Your task to perform on an android device: change the clock display to analog Image 0: 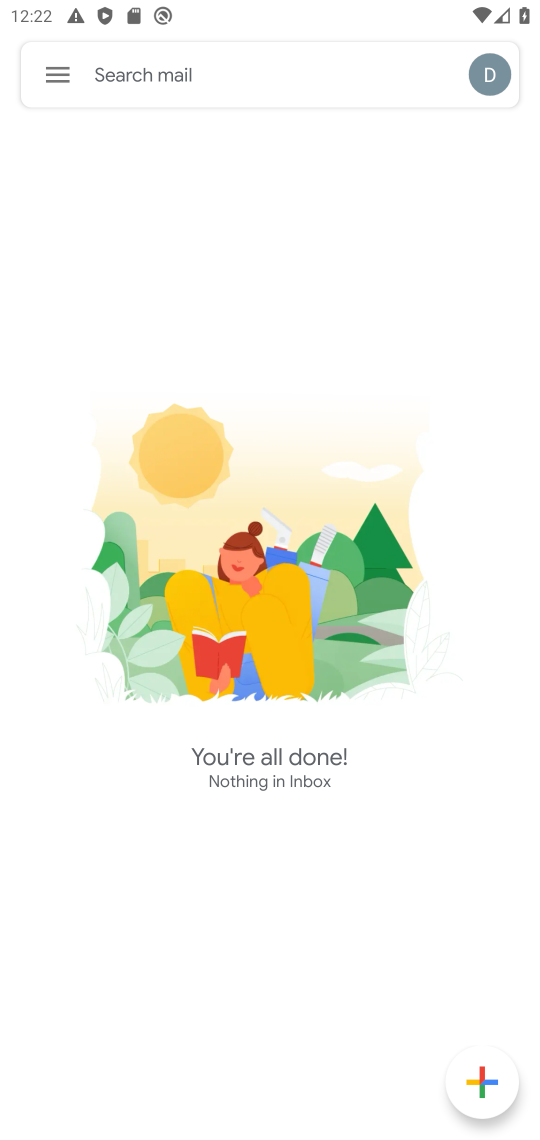
Step 0: press home button
Your task to perform on an android device: change the clock display to analog Image 1: 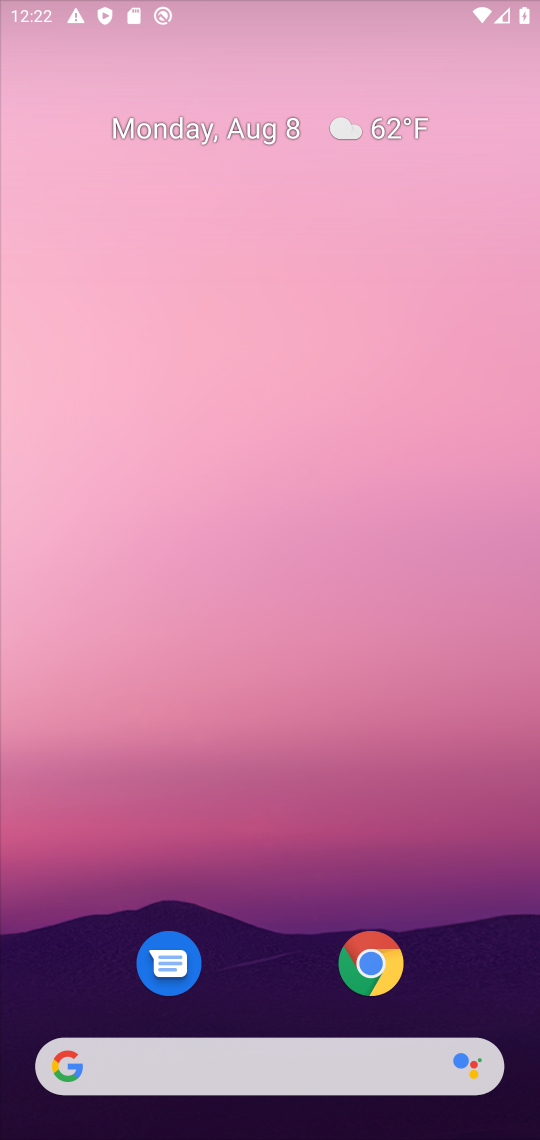
Step 1: drag from (458, 756) to (285, 19)
Your task to perform on an android device: change the clock display to analog Image 2: 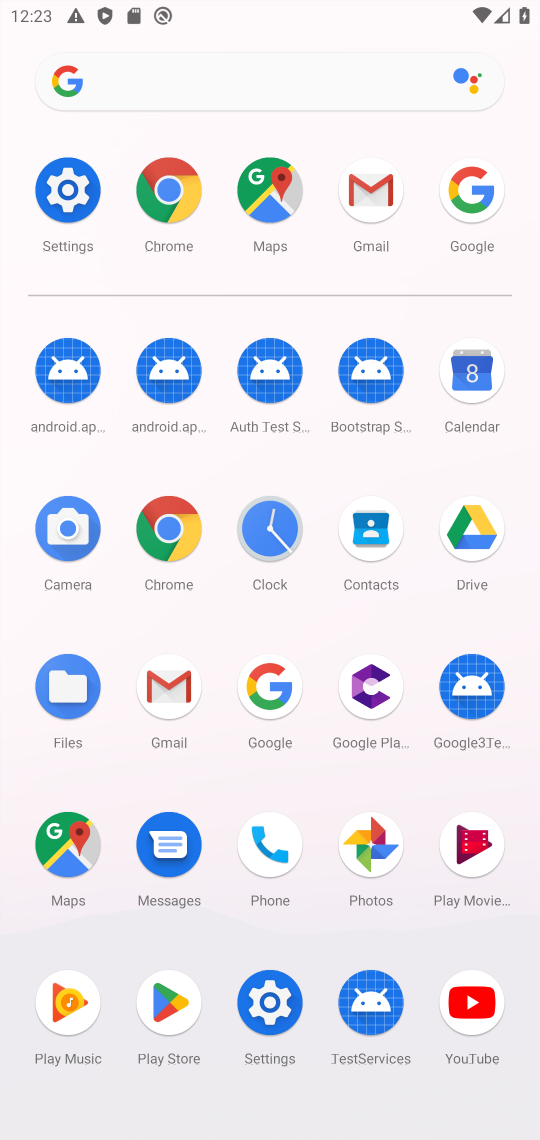
Step 2: click (275, 537)
Your task to perform on an android device: change the clock display to analog Image 3: 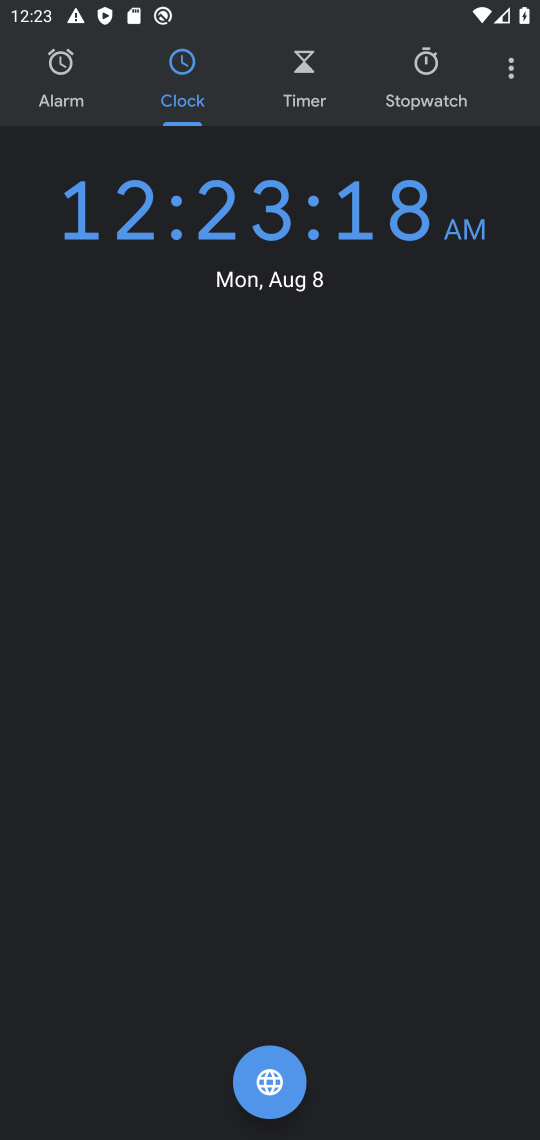
Step 3: click (510, 66)
Your task to perform on an android device: change the clock display to analog Image 4: 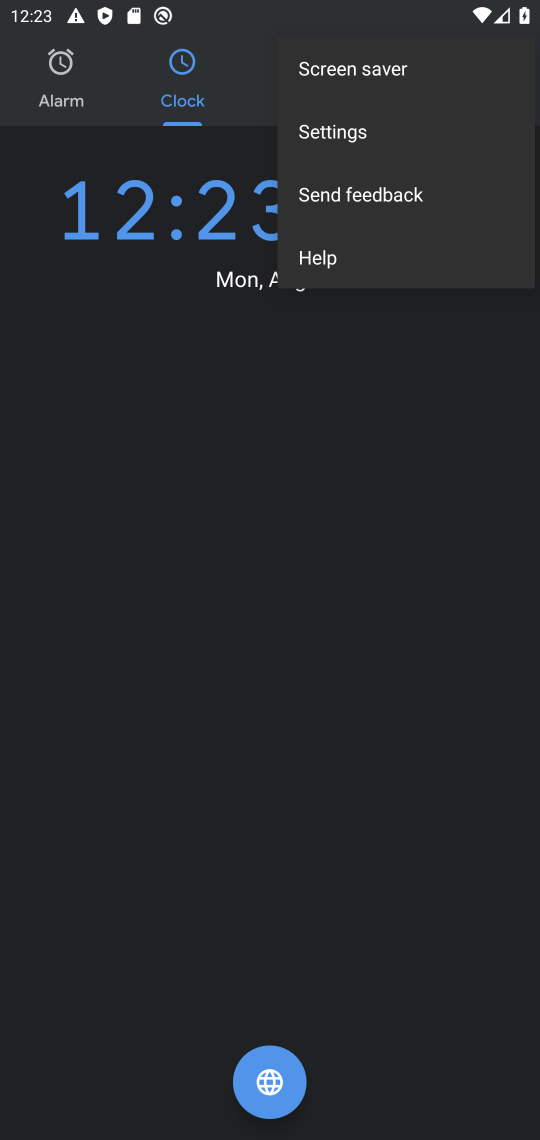
Step 4: click (350, 161)
Your task to perform on an android device: change the clock display to analog Image 5: 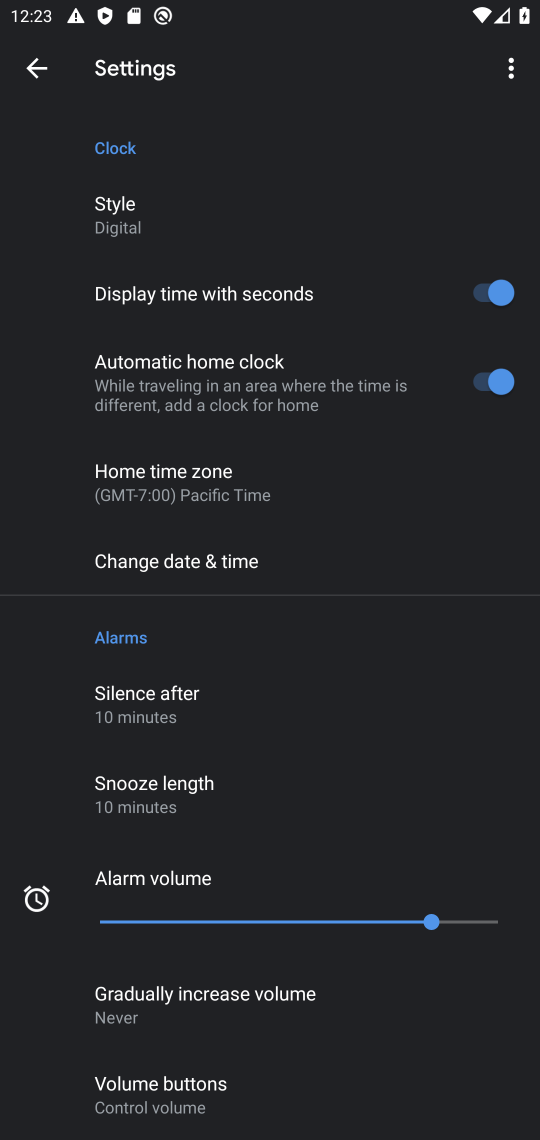
Step 5: click (135, 215)
Your task to perform on an android device: change the clock display to analog Image 6: 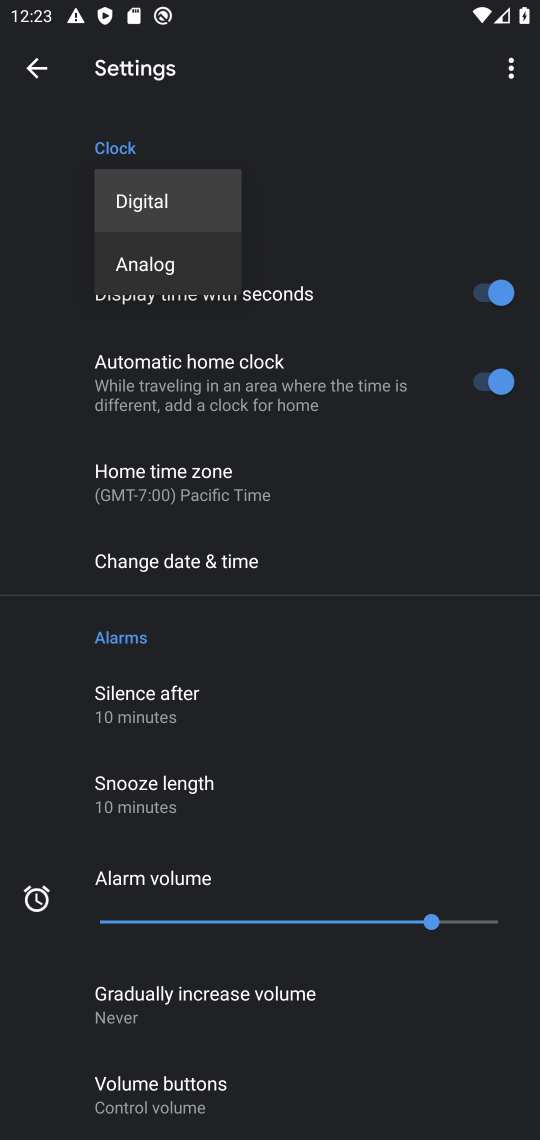
Step 6: click (180, 266)
Your task to perform on an android device: change the clock display to analog Image 7: 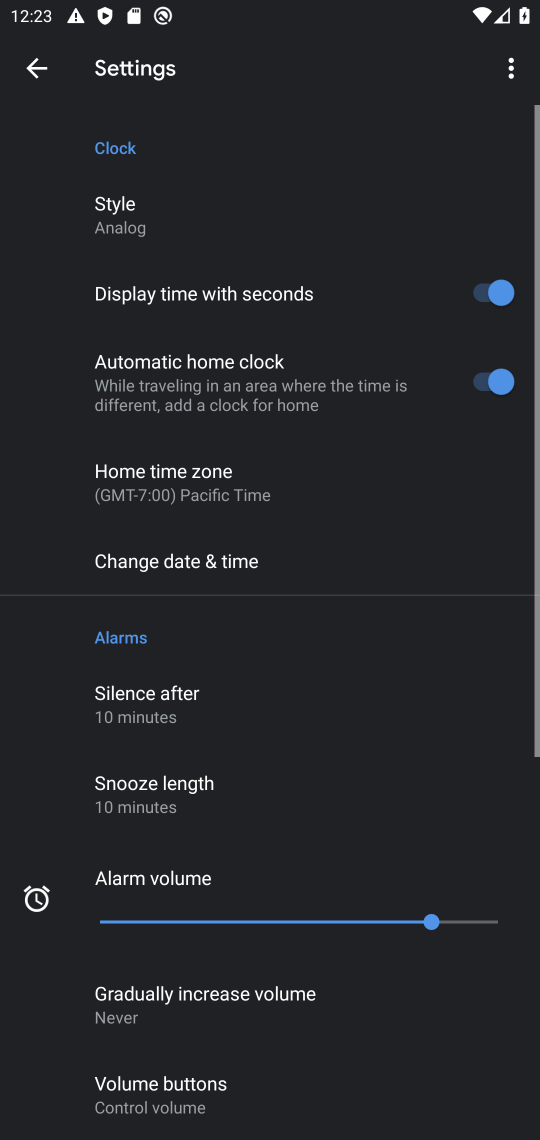
Step 7: task complete